Your task to perform on an android device: Search for the top rated book on goodreads. Image 0: 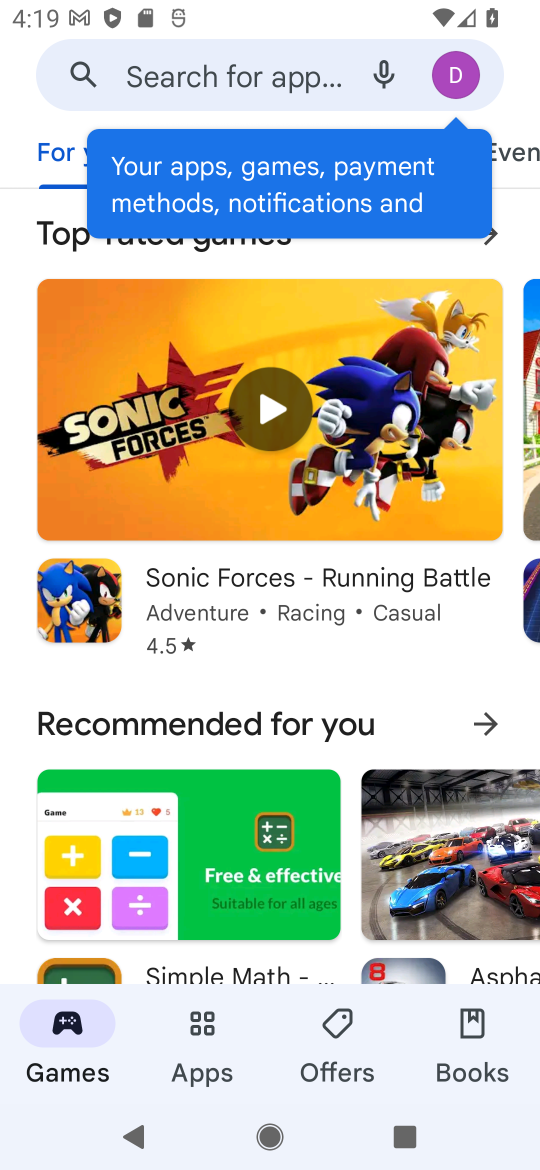
Step 0: press home button
Your task to perform on an android device: Search for the top rated book on goodreads. Image 1: 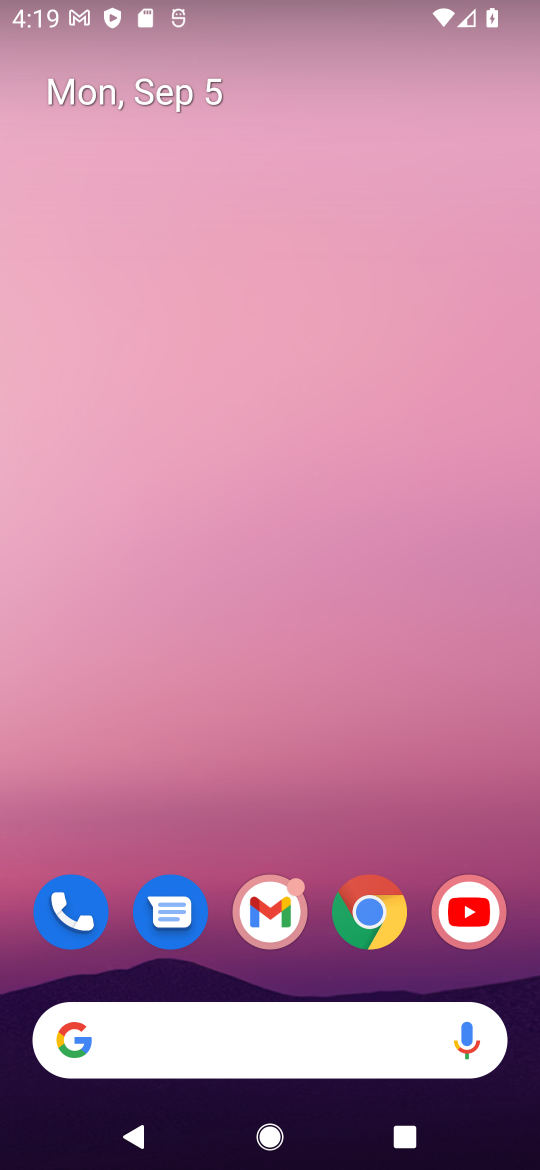
Step 1: click (376, 932)
Your task to perform on an android device: Search for the top rated book on goodreads. Image 2: 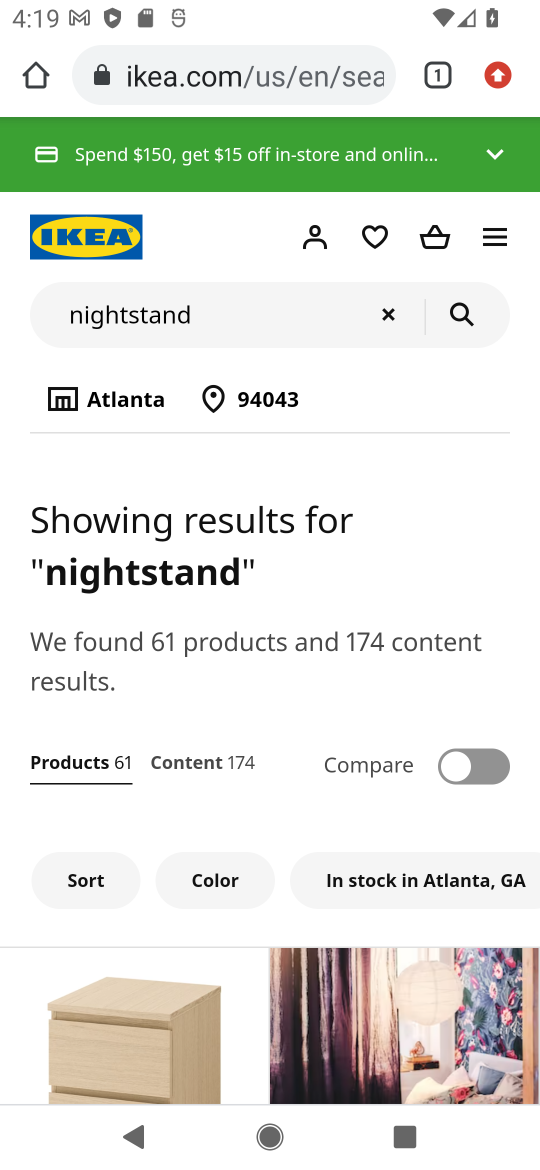
Step 2: click (311, 69)
Your task to perform on an android device: Search for the top rated book on goodreads. Image 3: 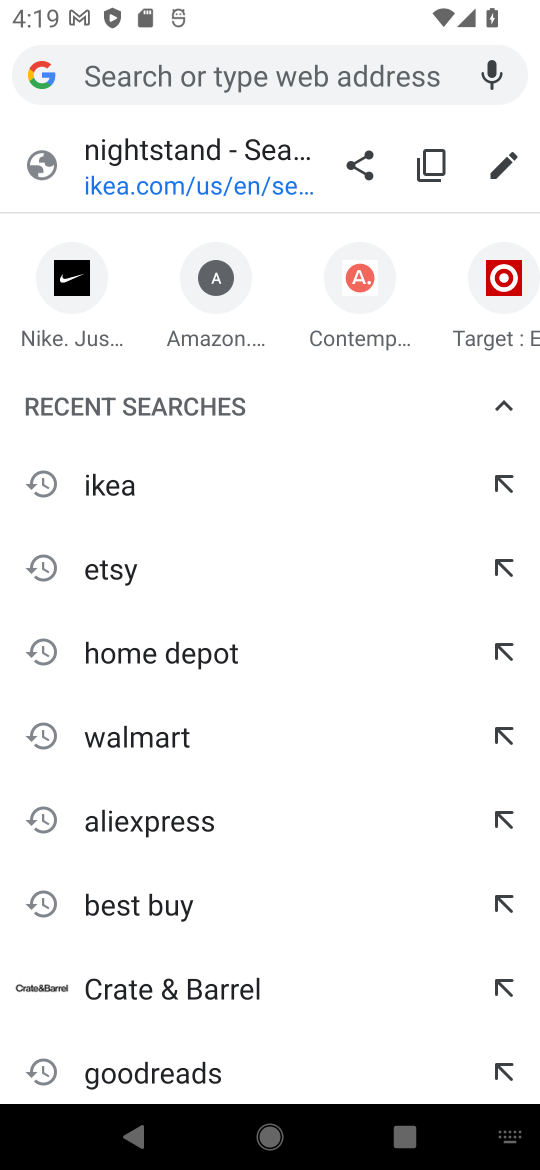
Step 3: type "goodreads"
Your task to perform on an android device: Search for the top rated book on goodreads. Image 4: 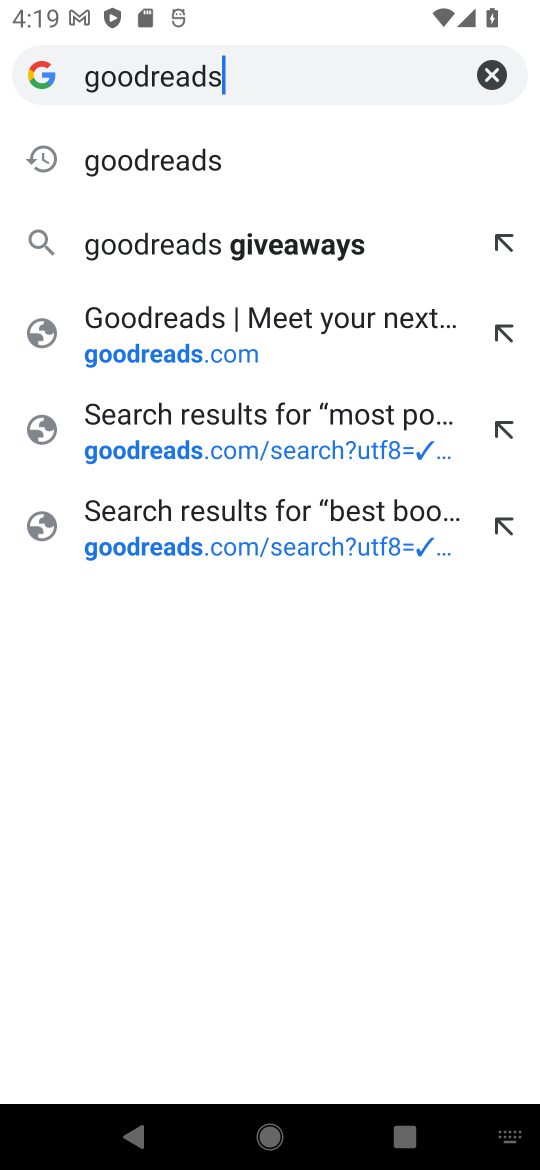
Step 4: press enter
Your task to perform on an android device: Search for the top rated book on goodreads. Image 5: 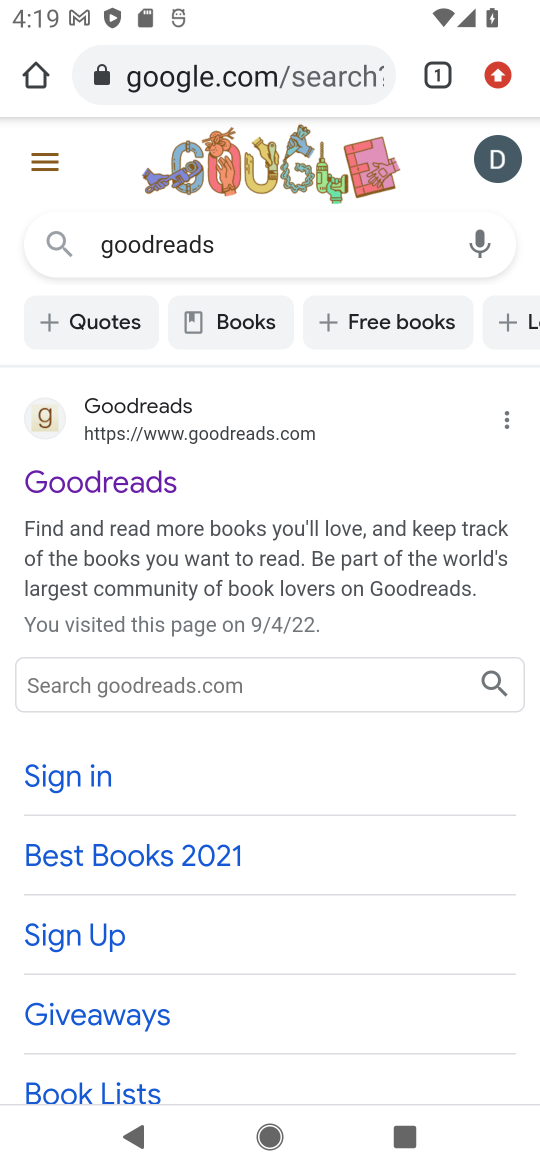
Step 5: click (94, 488)
Your task to perform on an android device: Search for the top rated book on goodreads. Image 6: 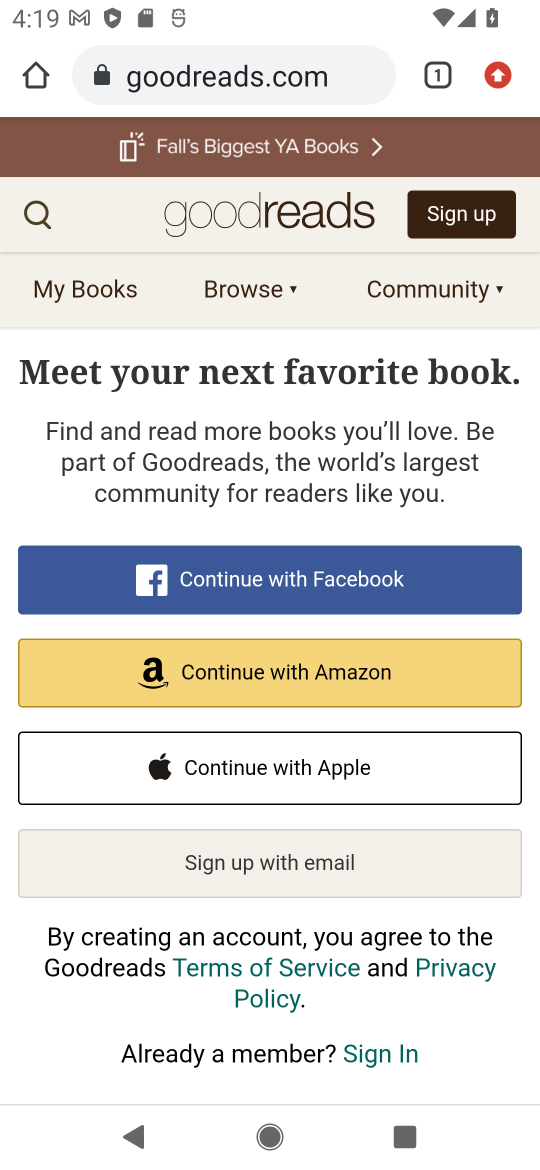
Step 6: drag from (233, 938) to (256, 689)
Your task to perform on an android device: Search for the top rated book on goodreads. Image 7: 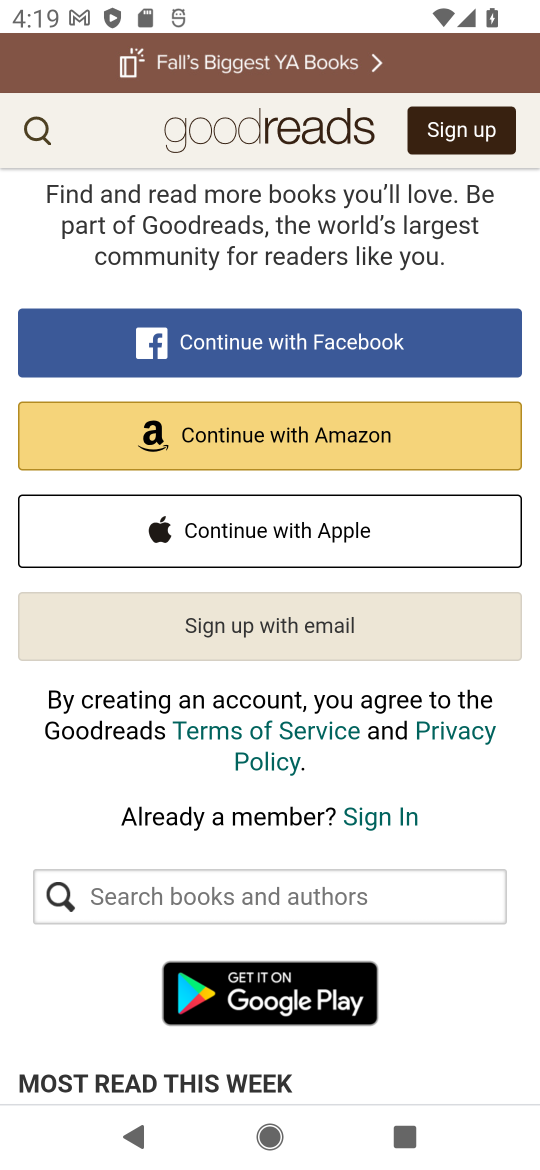
Step 7: click (230, 911)
Your task to perform on an android device: Search for the top rated book on goodreads. Image 8: 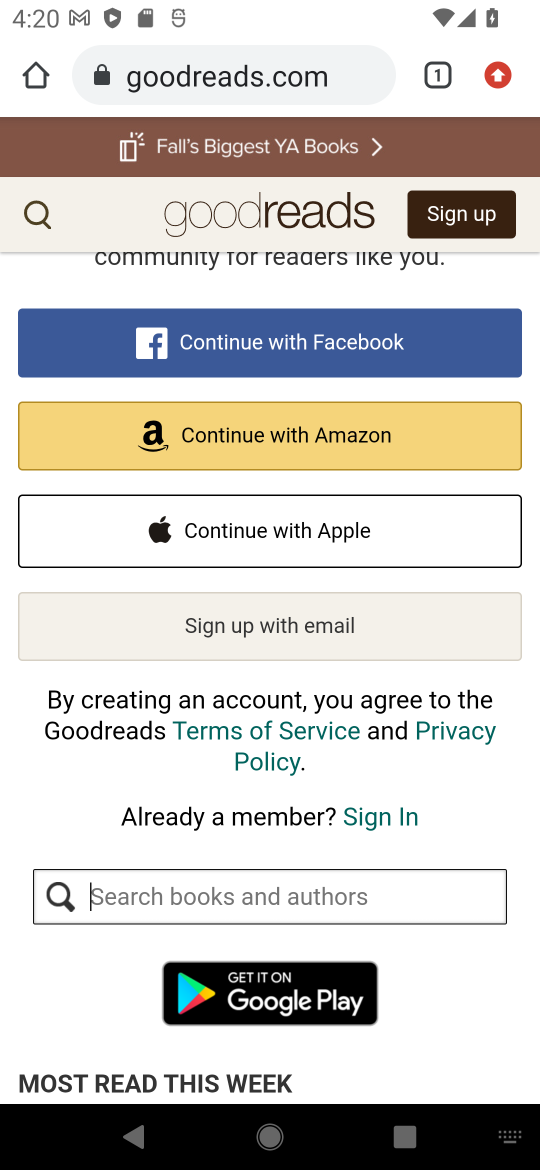
Step 8: type "top rated book"
Your task to perform on an android device: Search for the top rated book on goodreads. Image 9: 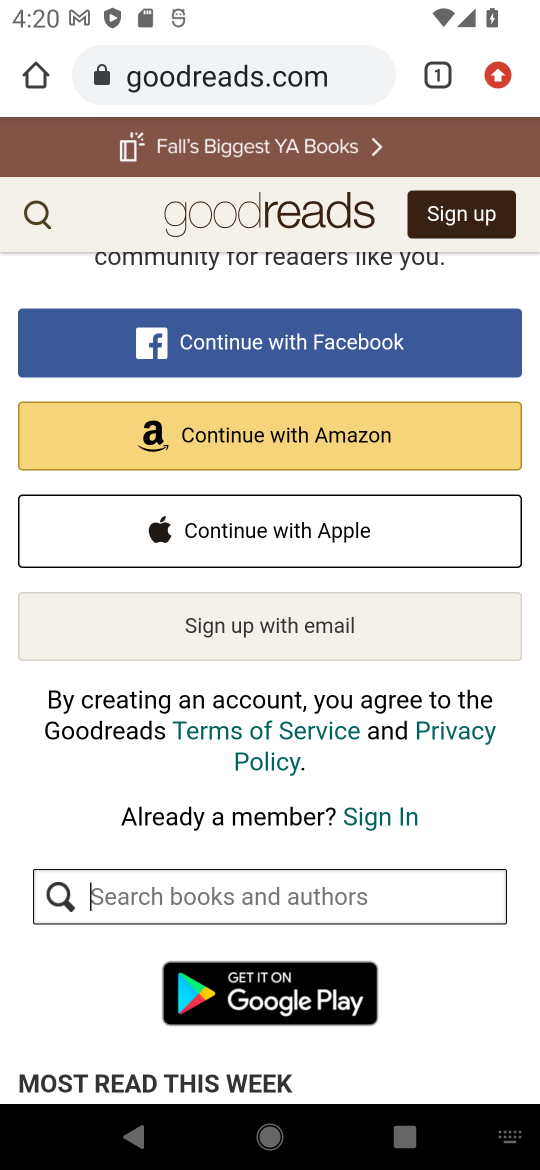
Step 9: type ""
Your task to perform on an android device: Search for the top rated book on goodreads. Image 10: 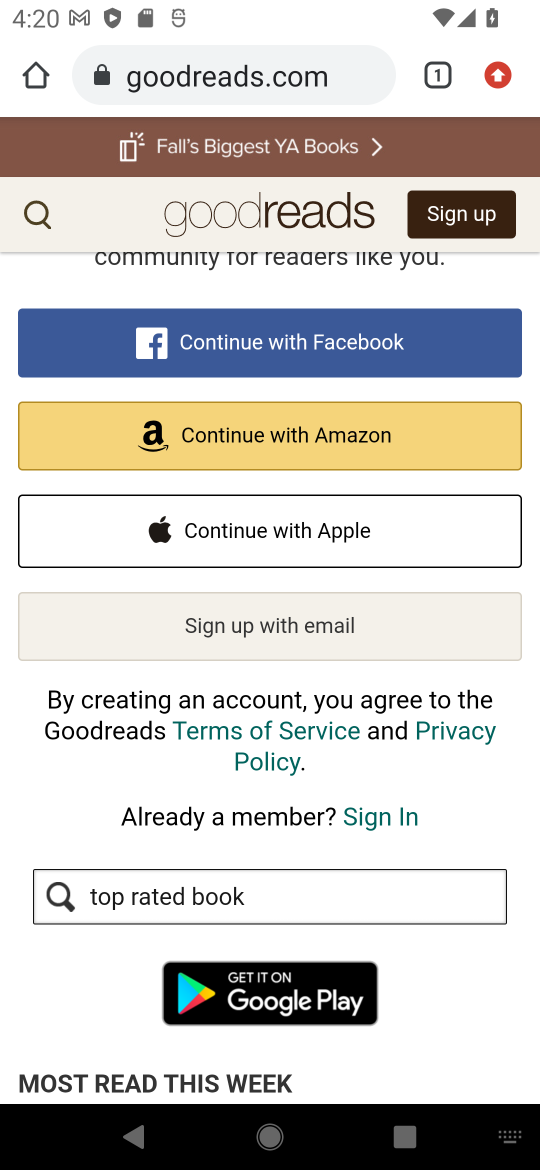
Step 10: press enter
Your task to perform on an android device: Search for the top rated book on goodreads. Image 11: 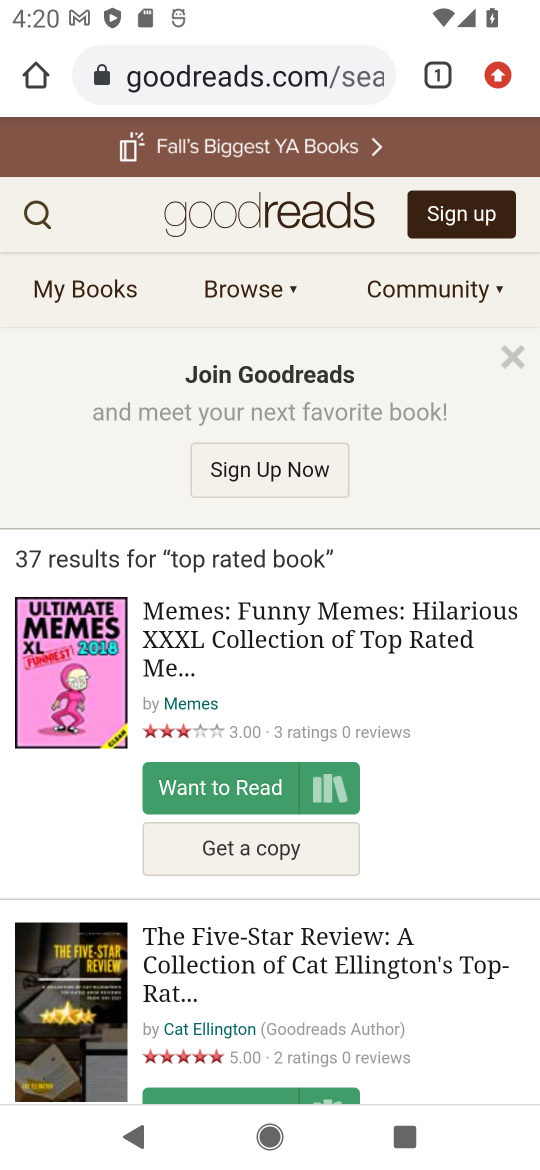
Step 11: task complete